Your task to perform on an android device: Open Google Image 0: 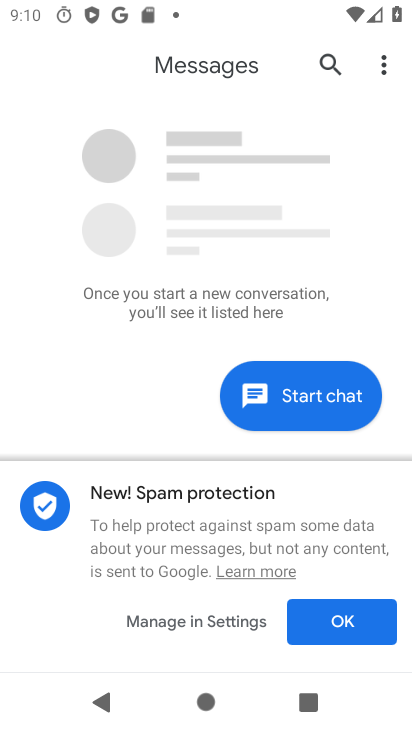
Step 0: drag from (331, 572) to (397, 398)
Your task to perform on an android device: Open Google Image 1: 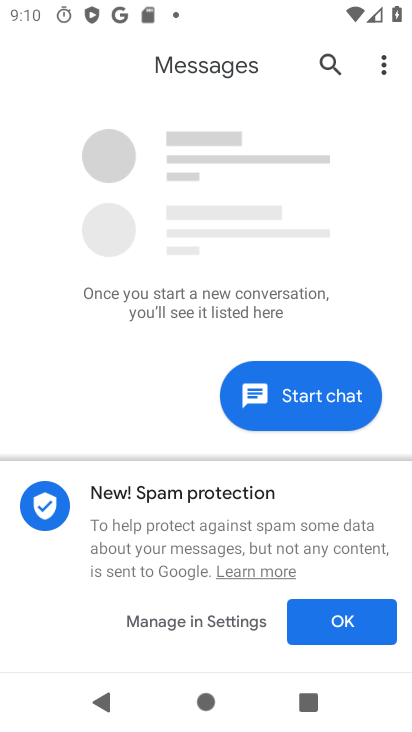
Step 1: press home button
Your task to perform on an android device: Open Google Image 2: 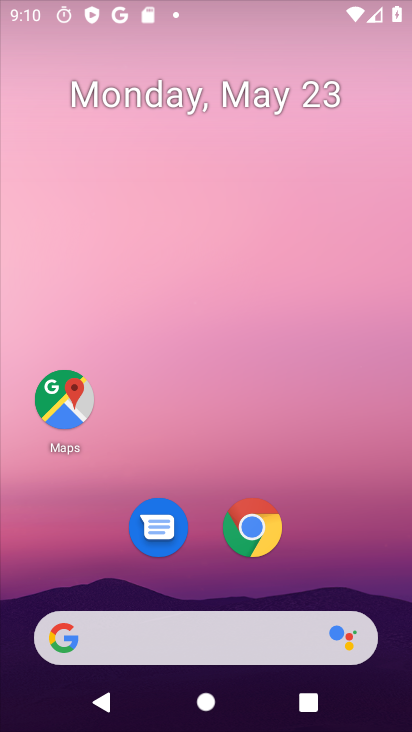
Step 2: drag from (360, 566) to (277, 98)
Your task to perform on an android device: Open Google Image 3: 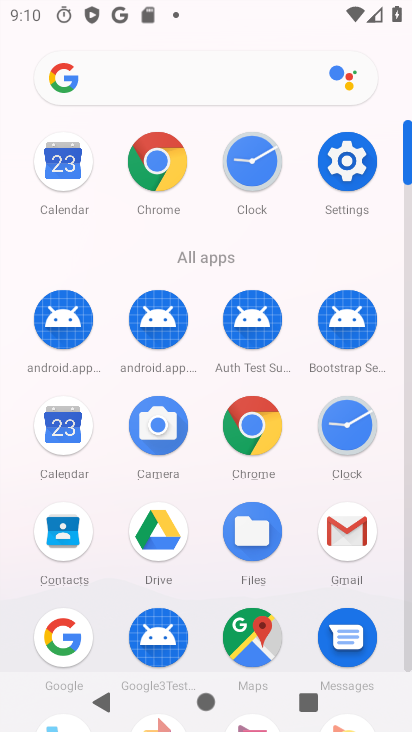
Step 3: click (71, 622)
Your task to perform on an android device: Open Google Image 4: 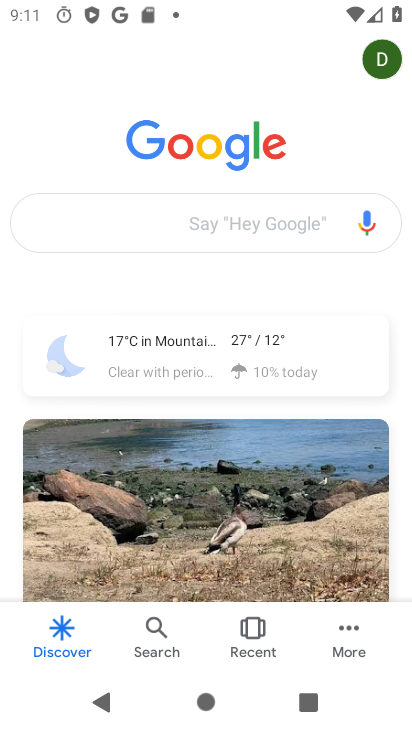
Step 4: task complete